Your task to perform on an android device: open app "Google Calendar" (install if not already installed) Image 0: 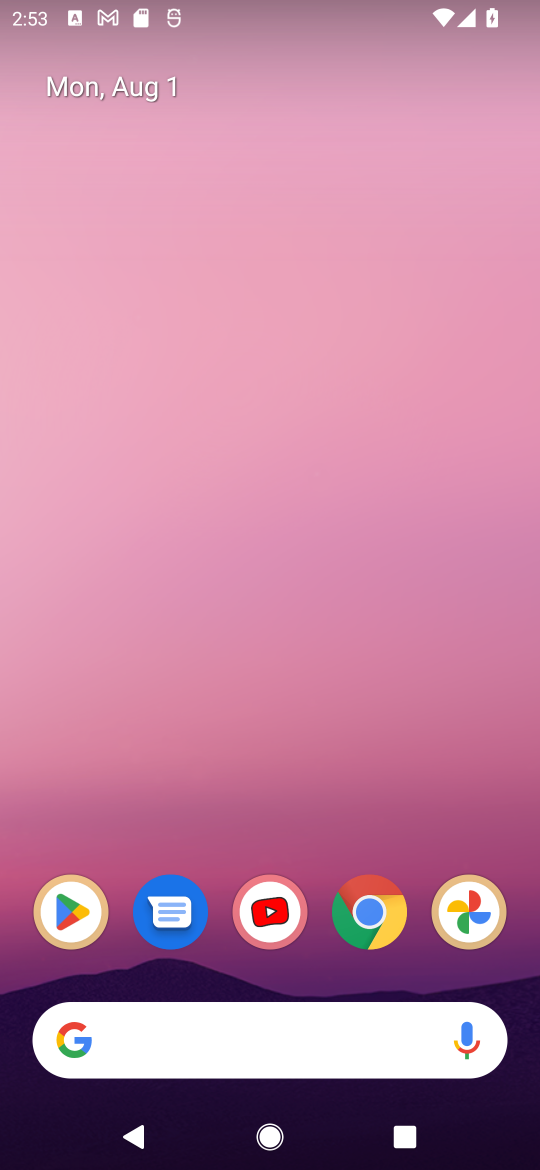
Step 0: drag from (303, 870) to (294, 1)
Your task to perform on an android device: open app "Google Calendar" (install if not already installed) Image 1: 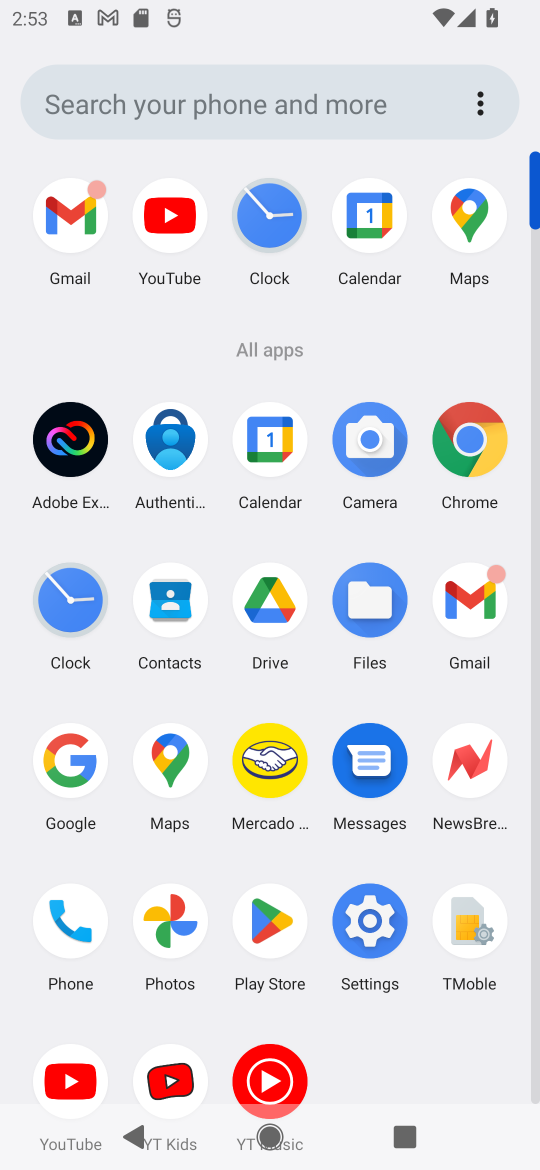
Step 1: drag from (378, 853) to (381, 593)
Your task to perform on an android device: open app "Google Calendar" (install if not already installed) Image 2: 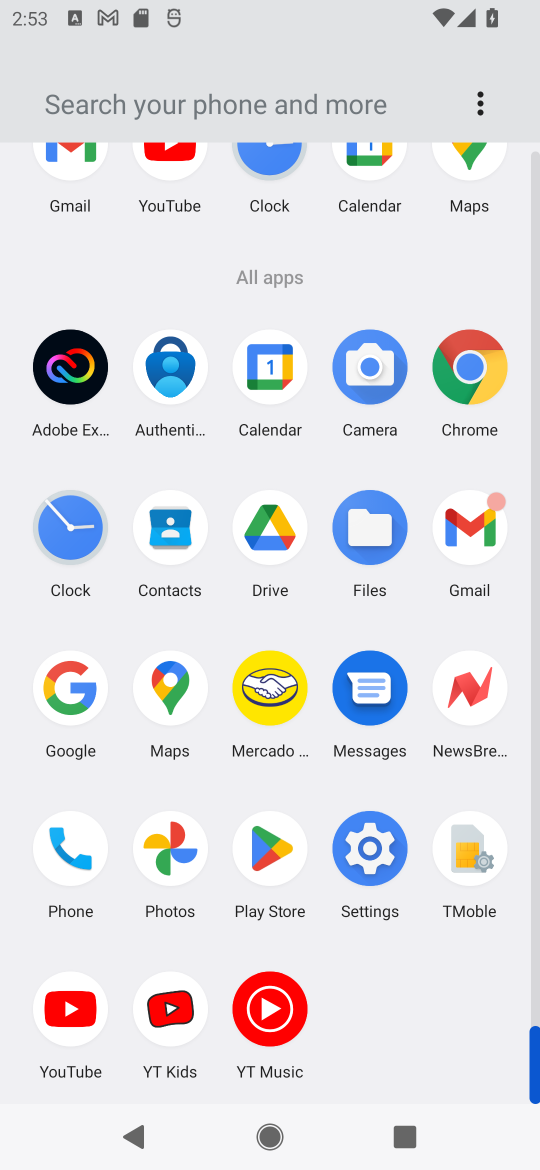
Step 2: drag from (379, 465) to (381, 710)
Your task to perform on an android device: open app "Google Calendar" (install if not already installed) Image 3: 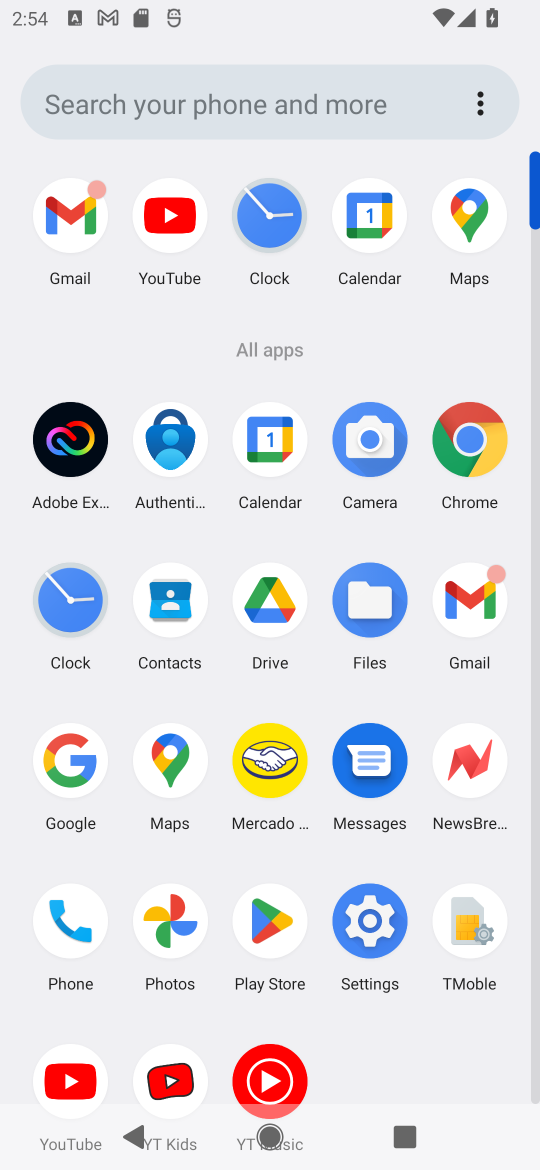
Step 3: click (258, 916)
Your task to perform on an android device: open app "Google Calendar" (install if not already installed) Image 4: 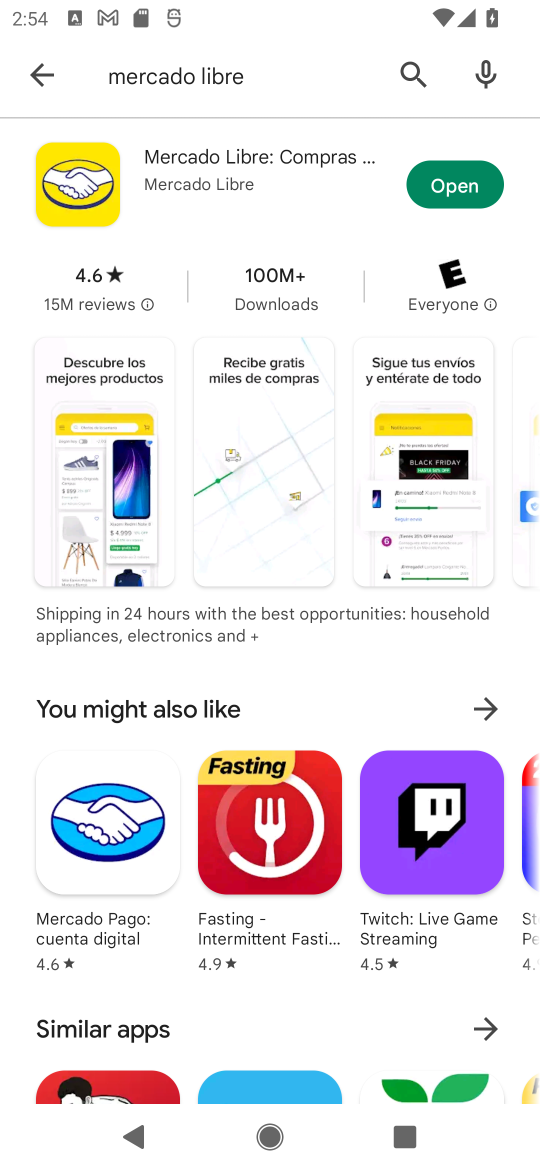
Step 4: click (393, 67)
Your task to perform on an android device: open app "Google Calendar" (install if not already installed) Image 5: 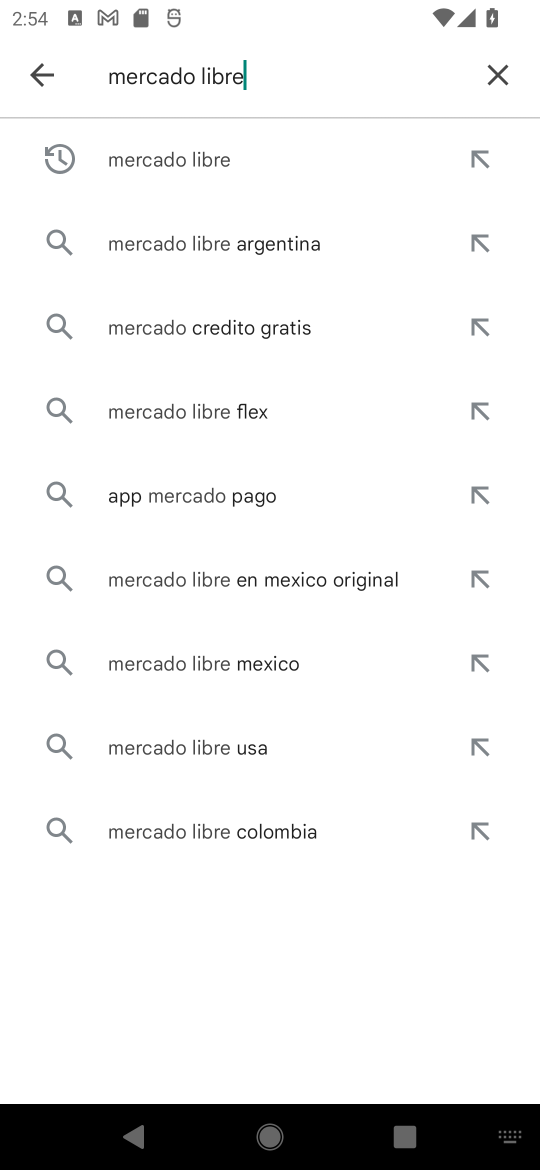
Step 5: click (484, 75)
Your task to perform on an android device: open app "Google Calendar" (install if not already installed) Image 6: 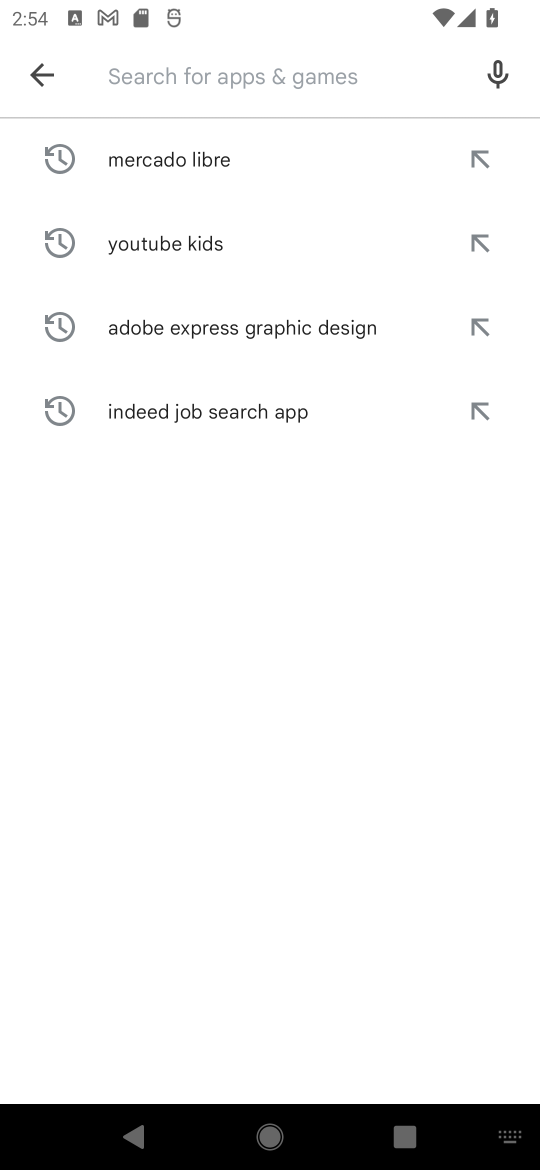
Step 6: click (204, 72)
Your task to perform on an android device: open app "Google Calendar" (install if not already installed) Image 7: 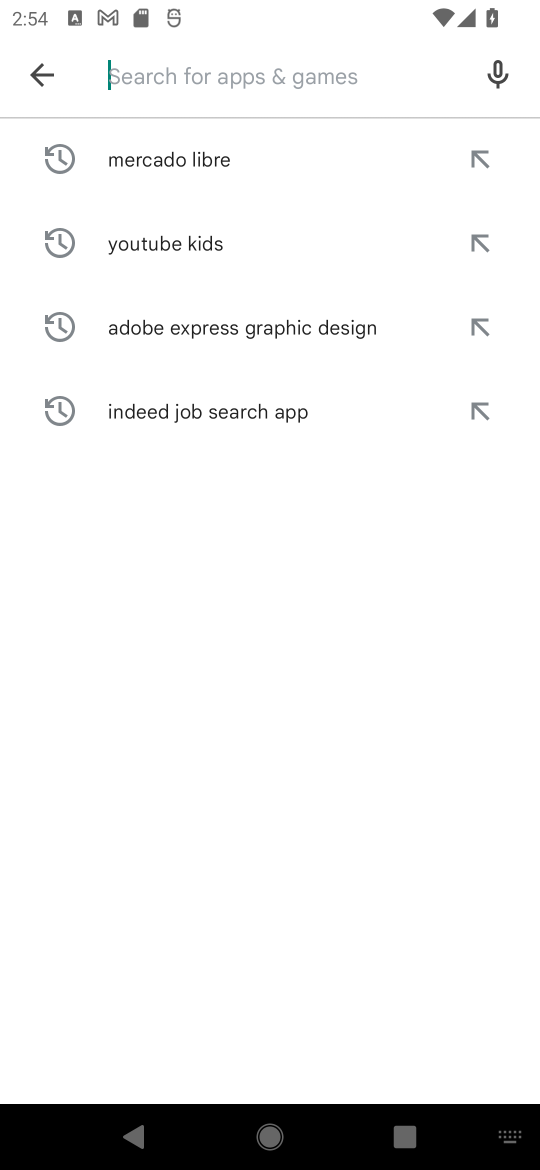
Step 7: type "Google Calendar"
Your task to perform on an android device: open app "Google Calendar" (install if not already installed) Image 8: 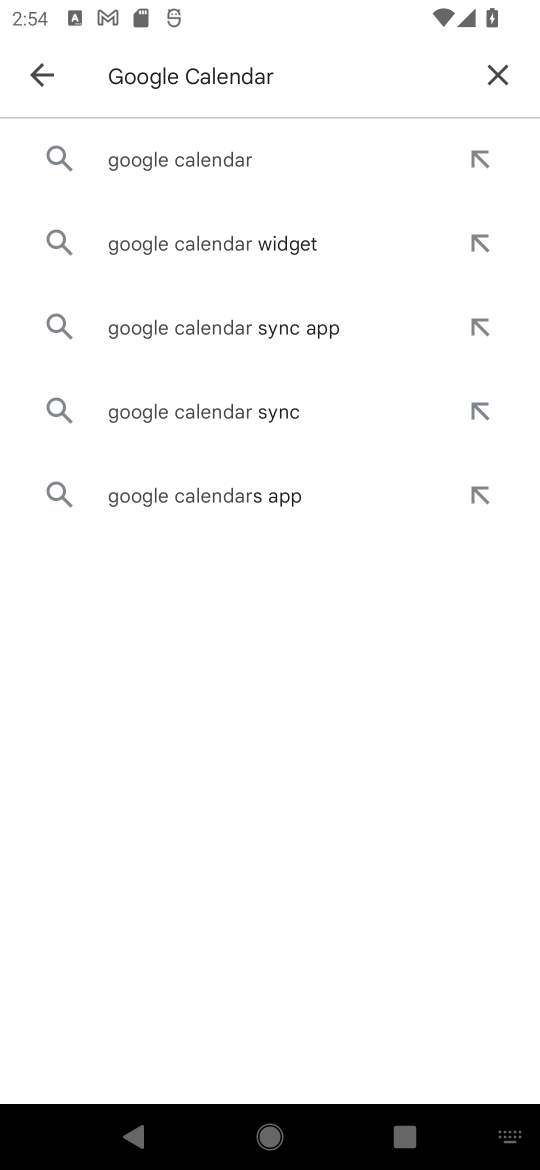
Step 8: click (197, 164)
Your task to perform on an android device: open app "Google Calendar" (install if not already installed) Image 9: 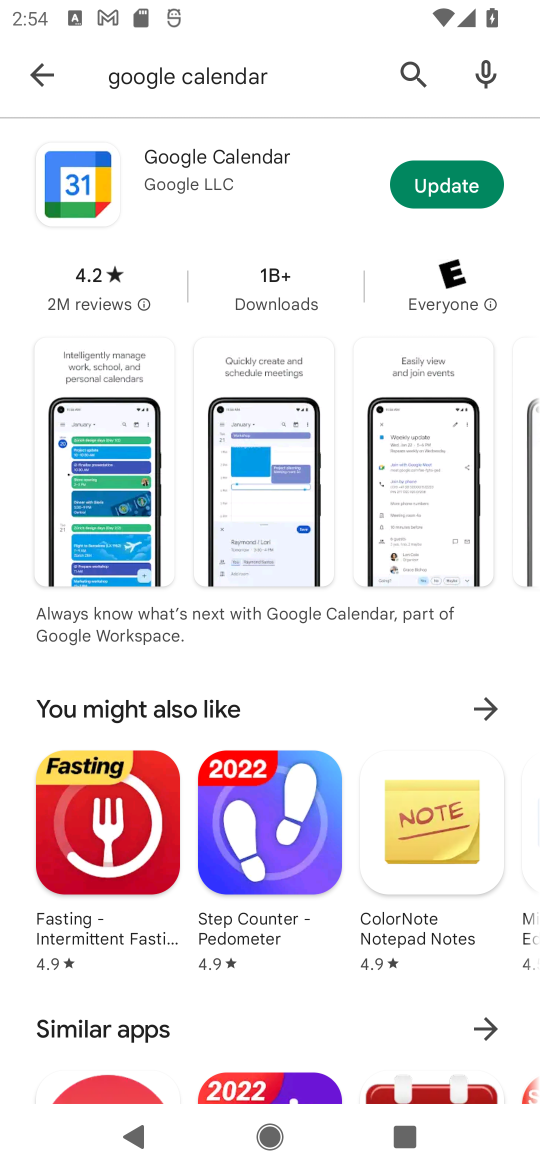
Step 9: click (66, 191)
Your task to perform on an android device: open app "Google Calendar" (install if not already installed) Image 10: 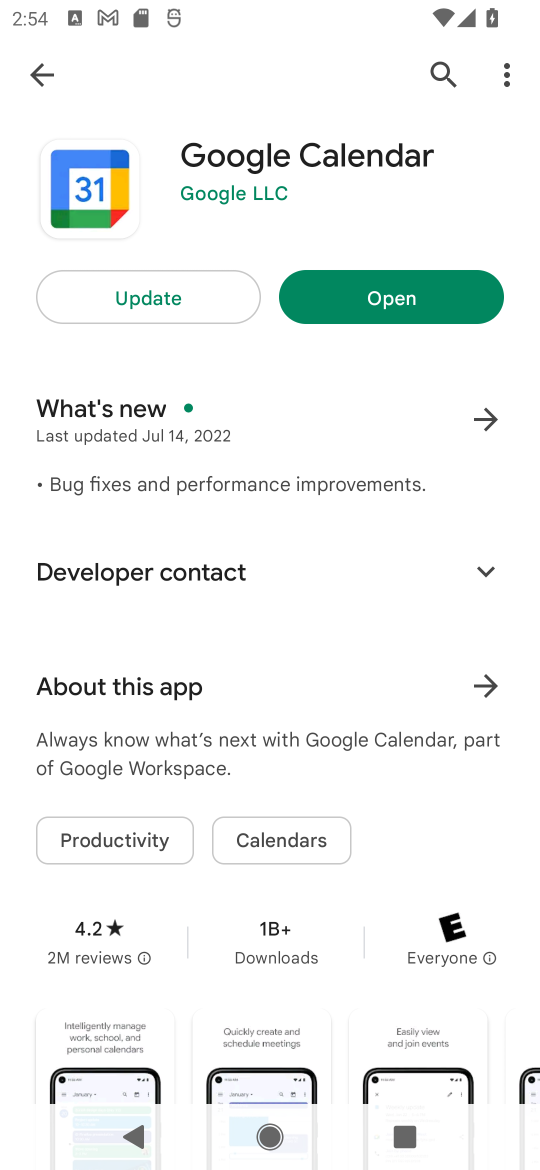
Step 10: click (378, 311)
Your task to perform on an android device: open app "Google Calendar" (install if not already installed) Image 11: 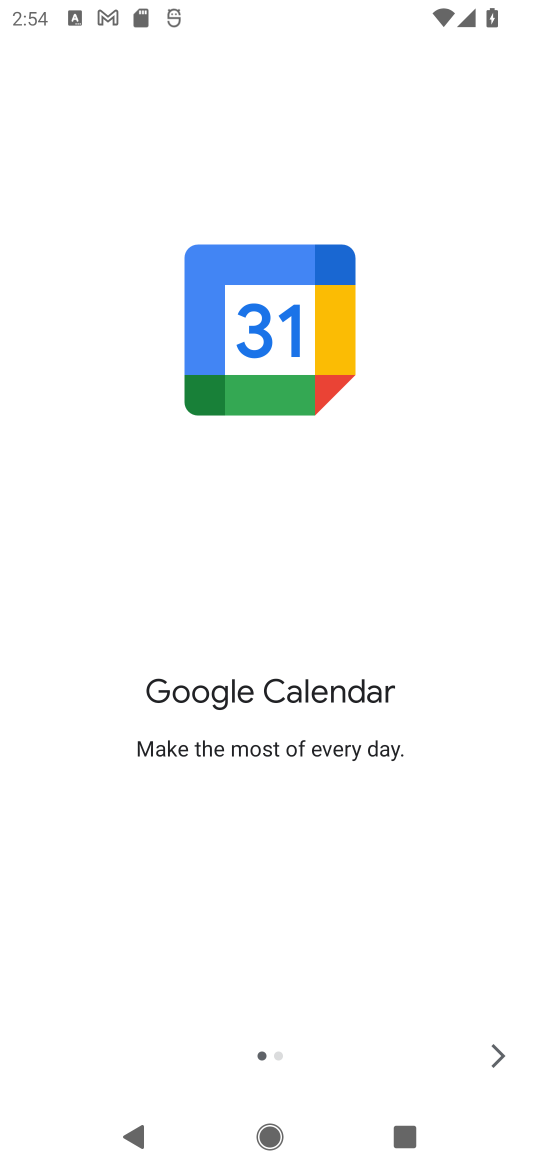
Step 11: task complete